Your task to perform on an android device: change keyboard looks Image 0: 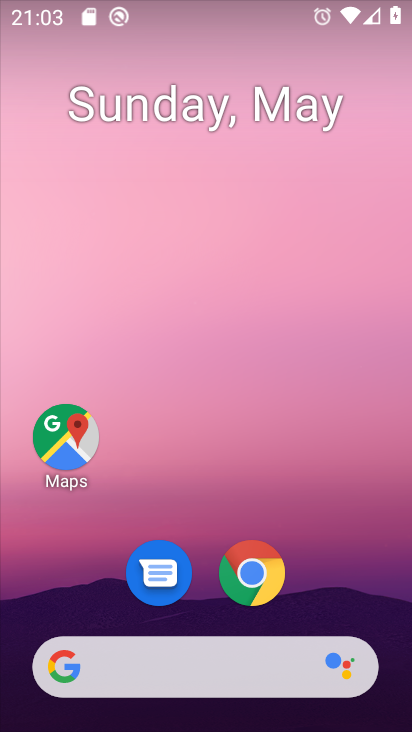
Step 0: drag from (204, 494) to (178, 0)
Your task to perform on an android device: change keyboard looks Image 1: 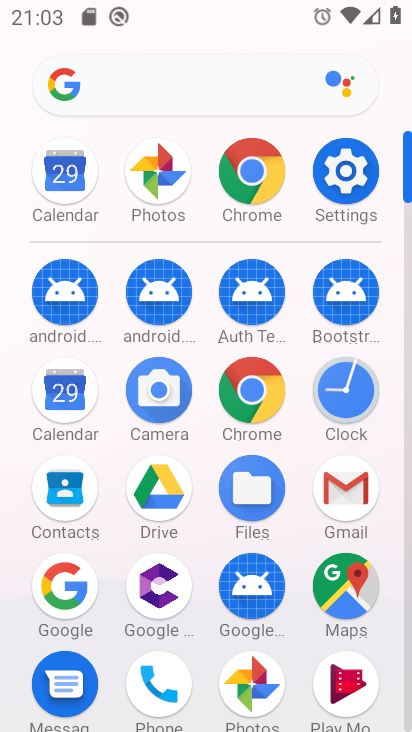
Step 1: click (346, 175)
Your task to perform on an android device: change keyboard looks Image 2: 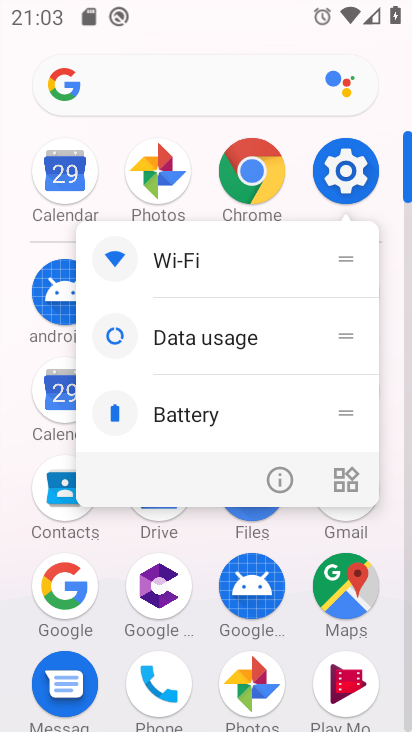
Step 2: click (346, 176)
Your task to perform on an android device: change keyboard looks Image 3: 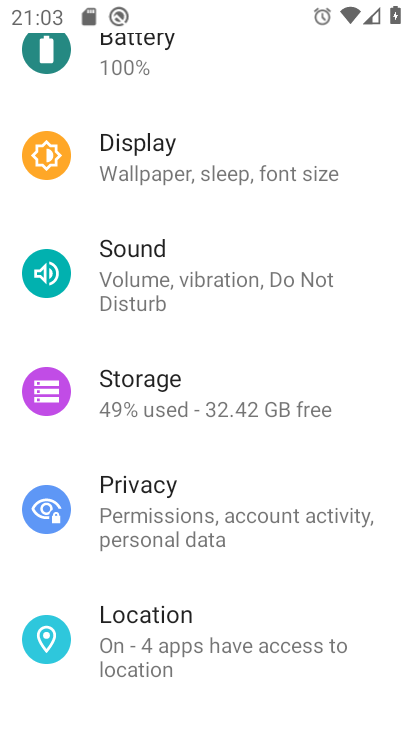
Step 3: drag from (262, 585) to (227, 11)
Your task to perform on an android device: change keyboard looks Image 4: 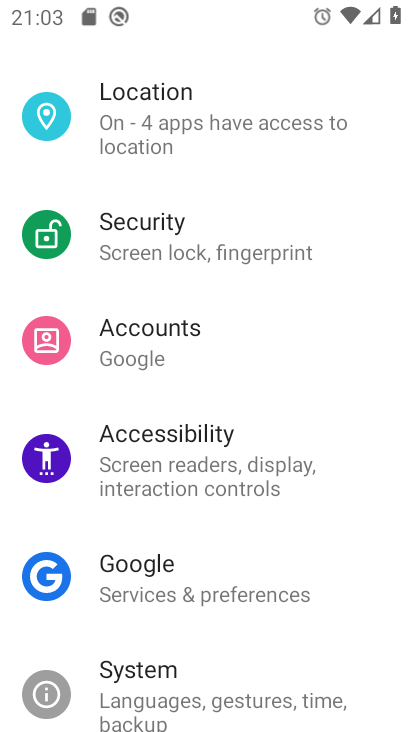
Step 4: drag from (220, 541) to (223, 8)
Your task to perform on an android device: change keyboard looks Image 5: 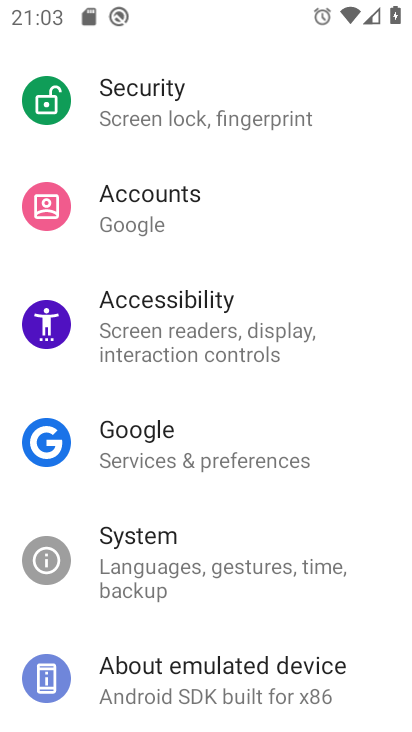
Step 5: click (230, 567)
Your task to perform on an android device: change keyboard looks Image 6: 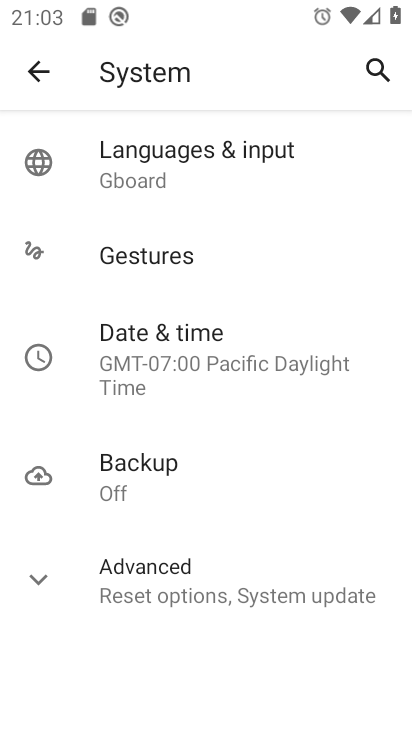
Step 6: click (213, 150)
Your task to perform on an android device: change keyboard looks Image 7: 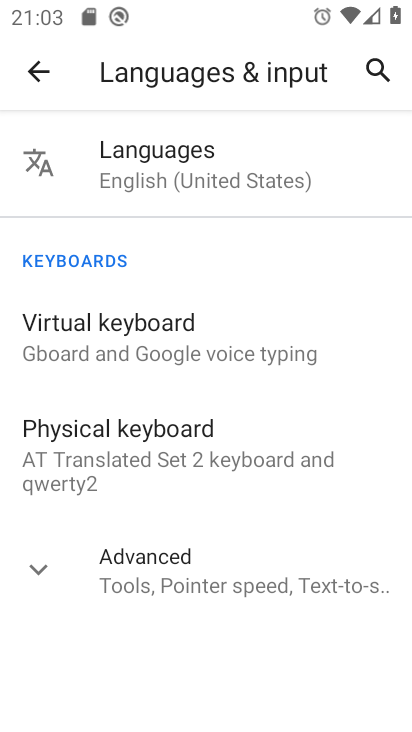
Step 7: click (162, 355)
Your task to perform on an android device: change keyboard looks Image 8: 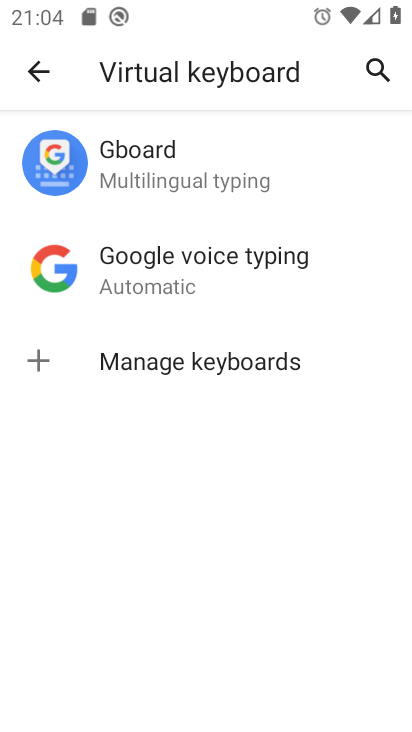
Step 8: click (177, 171)
Your task to perform on an android device: change keyboard looks Image 9: 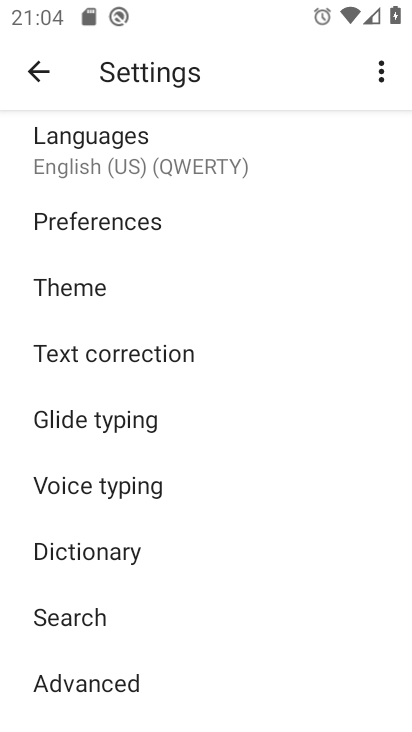
Step 9: click (75, 274)
Your task to perform on an android device: change keyboard looks Image 10: 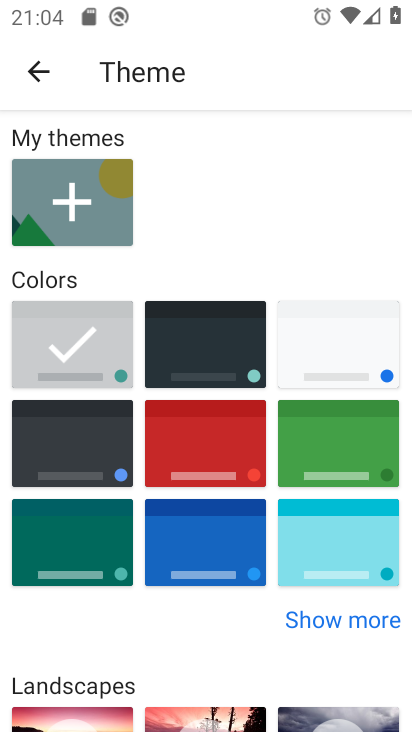
Step 10: click (190, 438)
Your task to perform on an android device: change keyboard looks Image 11: 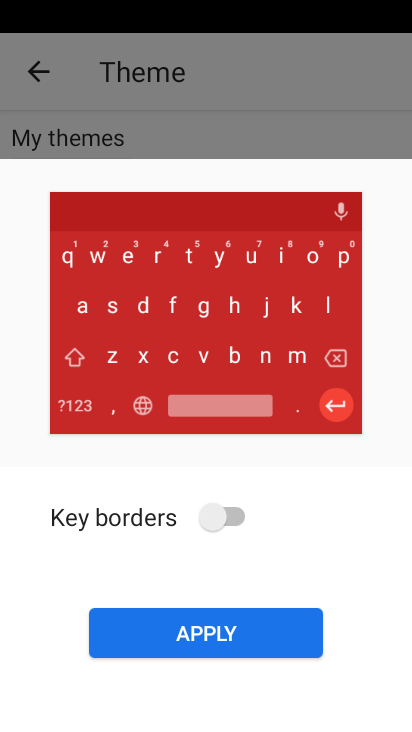
Step 11: click (240, 510)
Your task to perform on an android device: change keyboard looks Image 12: 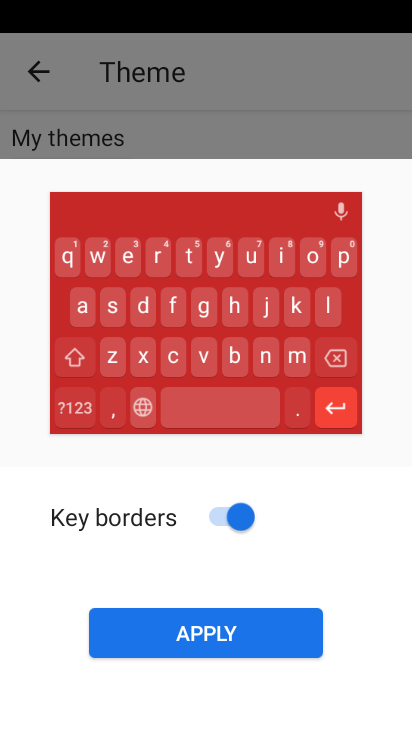
Step 12: click (230, 639)
Your task to perform on an android device: change keyboard looks Image 13: 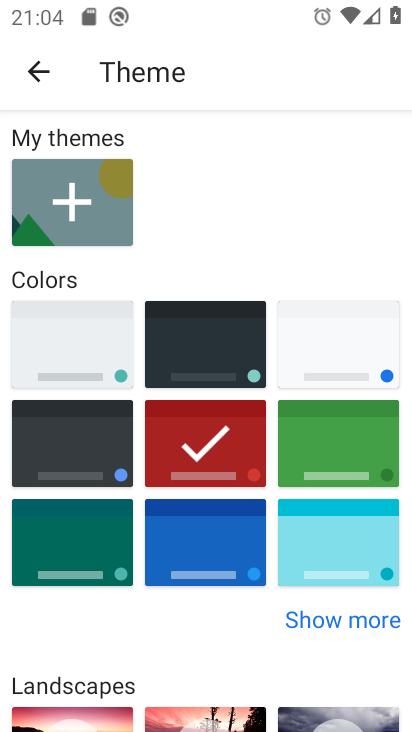
Step 13: task complete